Your task to perform on an android device: turn off data saver in the chrome app Image 0: 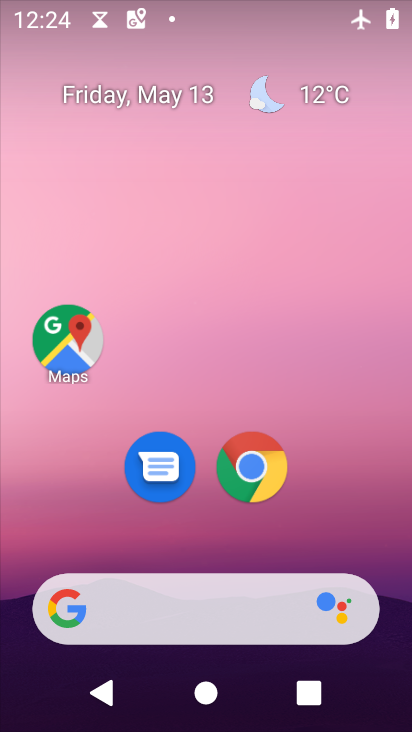
Step 0: click (252, 486)
Your task to perform on an android device: turn off data saver in the chrome app Image 1: 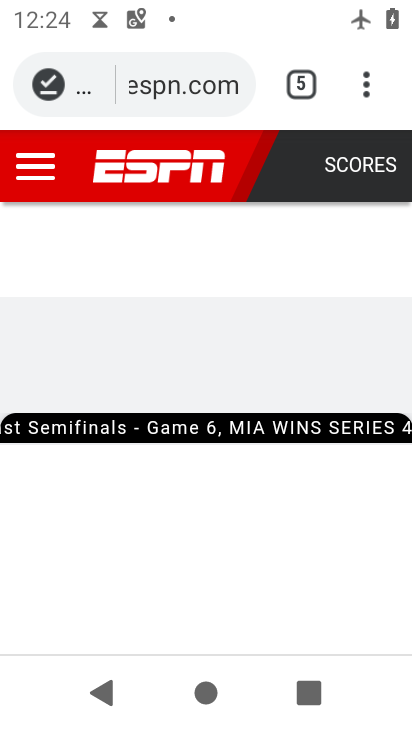
Step 1: click (369, 76)
Your task to perform on an android device: turn off data saver in the chrome app Image 2: 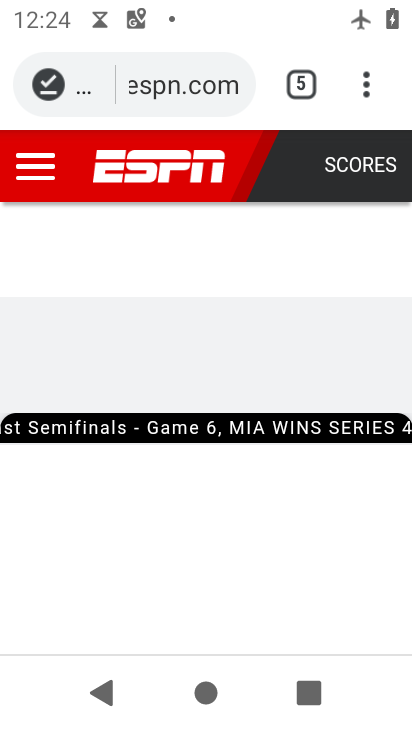
Step 2: click (366, 86)
Your task to perform on an android device: turn off data saver in the chrome app Image 3: 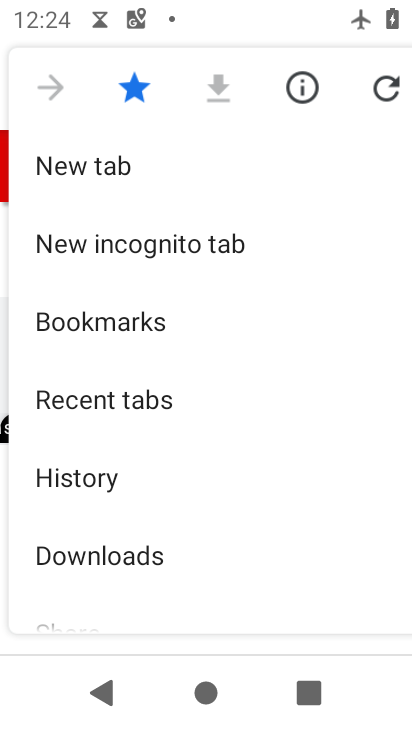
Step 3: drag from (227, 524) to (164, 140)
Your task to perform on an android device: turn off data saver in the chrome app Image 4: 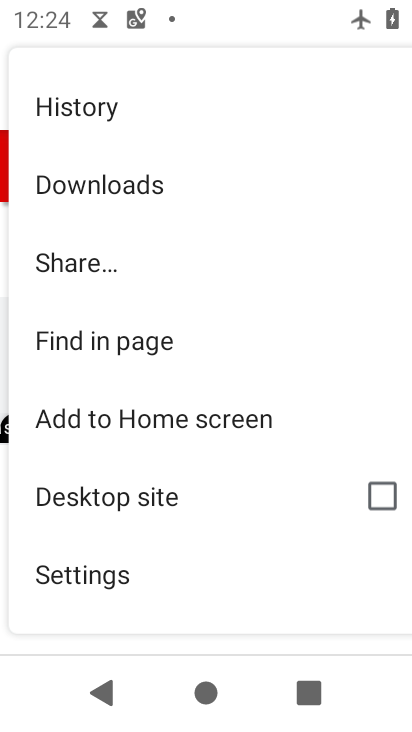
Step 4: drag from (179, 493) to (156, 161)
Your task to perform on an android device: turn off data saver in the chrome app Image 5: 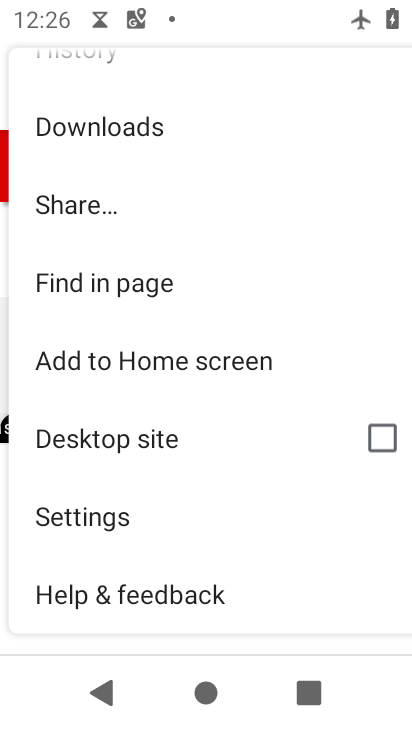
Step 5: click (162, 524)
Your task to perform on an android device: turn off data saver in the chrome app Image 6: 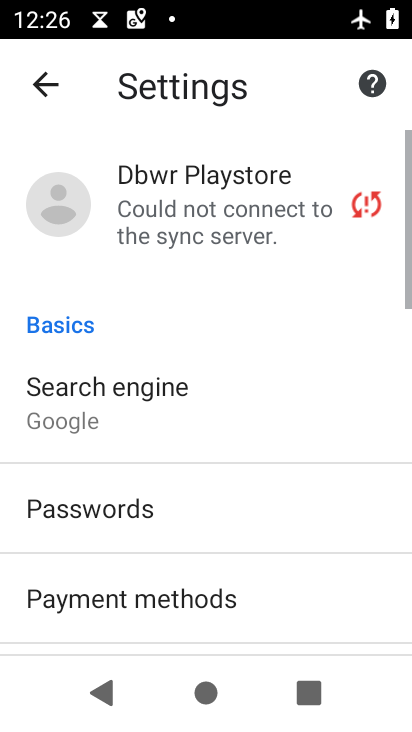
Step 6: drag from (255, 582) to (185, 123)
Your task to perform on an android device: turn off data saver in the chrome app Image 7: 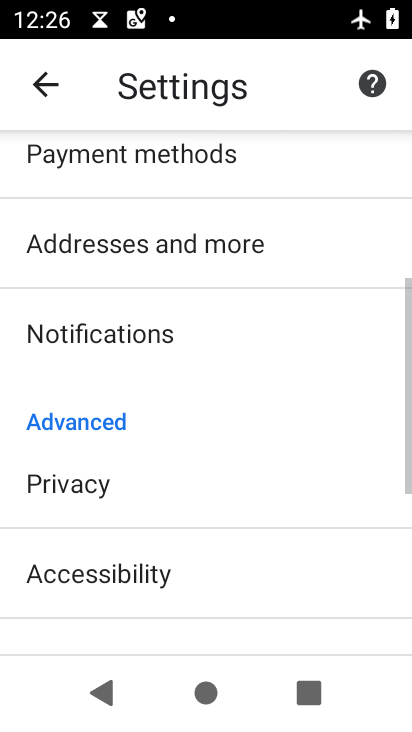
Step 7: drag from (116, 485) to (98, 123)
Your task to perform on an android device: turn off data saver in the chrome app Image 8: 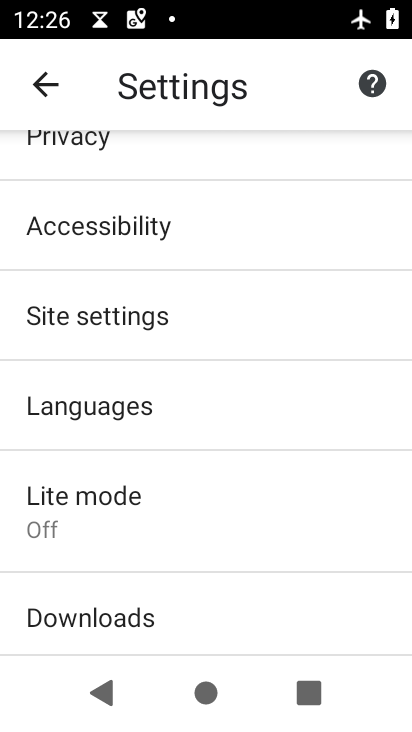
Step 8: click (131, 522)
Your task to perform on an android device: turn off data saver in the chrome app Image 9: 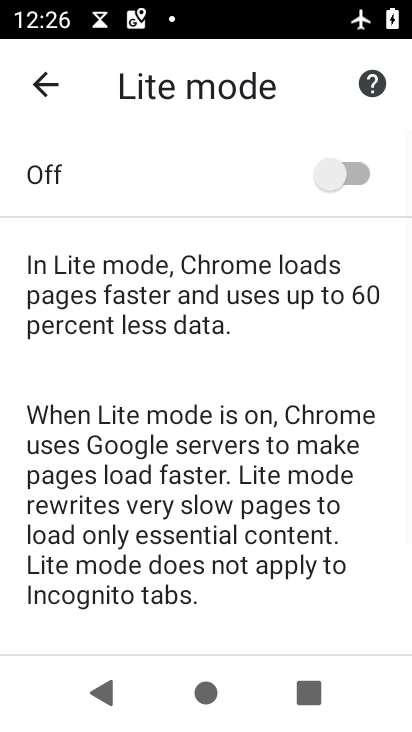
Step 9: click (350, 180)
Your task to perform on an android device: turn off data saver in the chrome app Image 10: 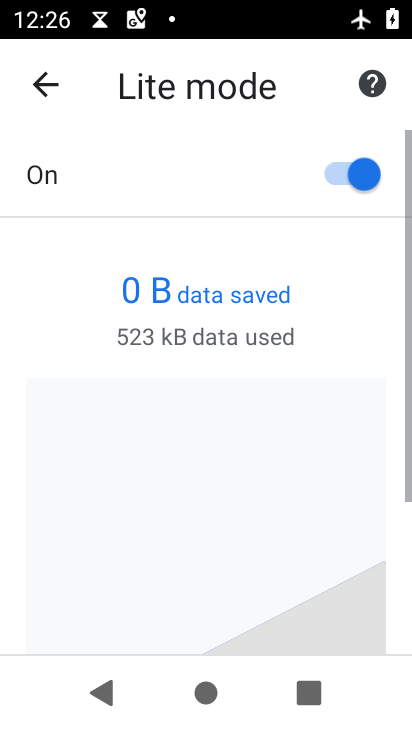
Step 10: task complete